Your task to perform on an android device: Open Reddit.com Image 0: 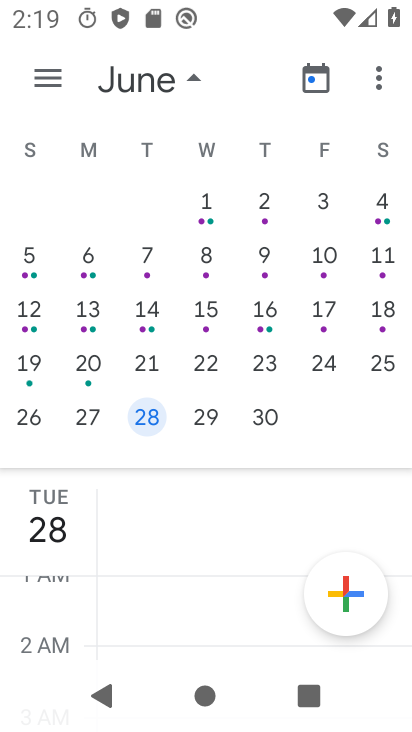
Step 0: press home button
Your task to perform on an android device: Open Reddit.com Image 1: 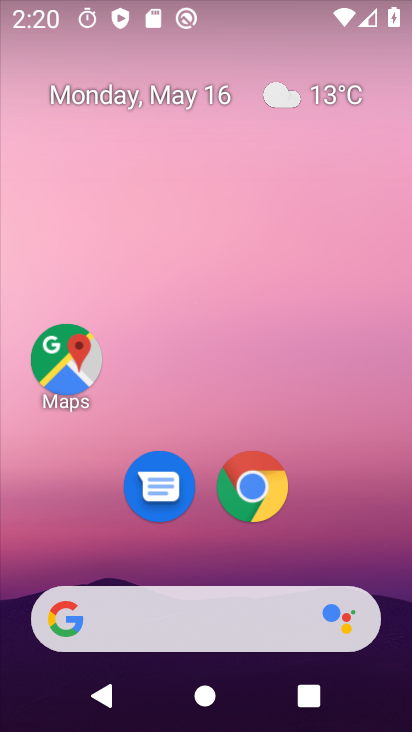
Step 1: click (257, 486)
Your task to perform on an android device: Open Reddit.com Image 2: 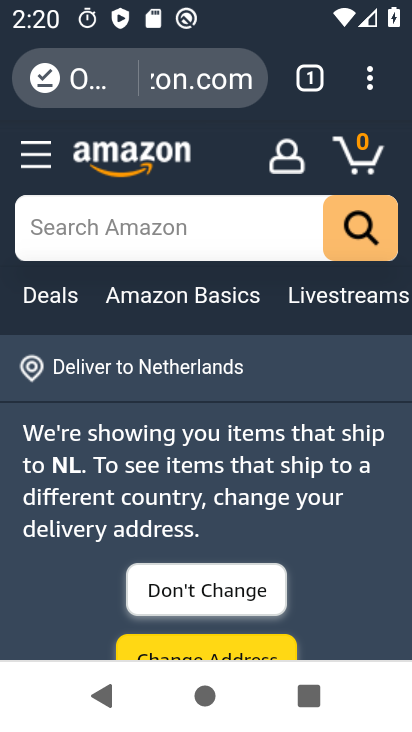
Step 2: click (128, 98)
Your task to perform on an android device: Open Reddit.com Image 3: 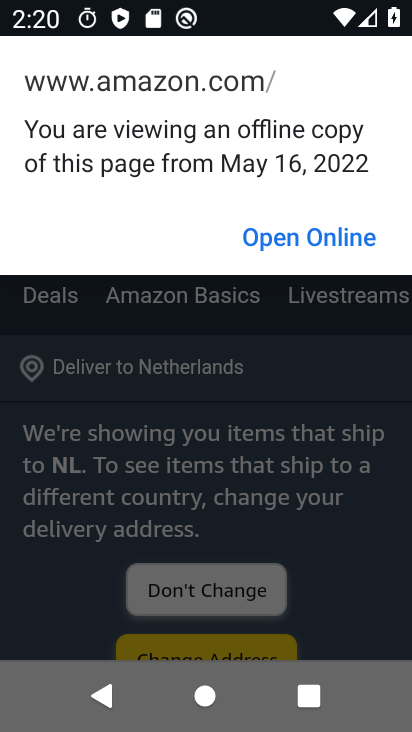
Step 3: press back button
Your task to perform on an android device: Open Reddit.com Image 4: 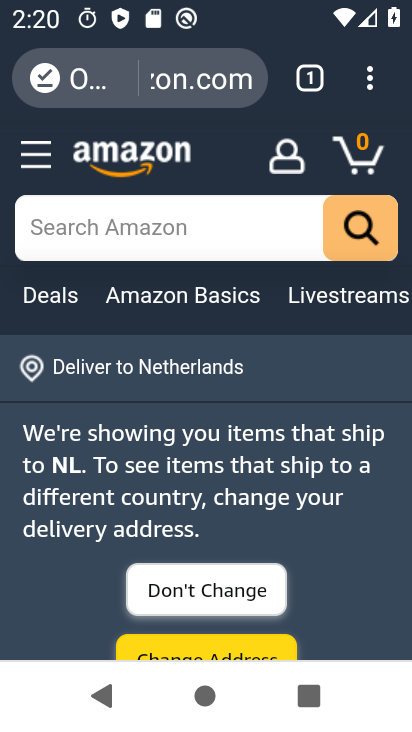
Step 4: click (145, 57)
Your task to perform on an android device: Open Reddit.com Image 5: 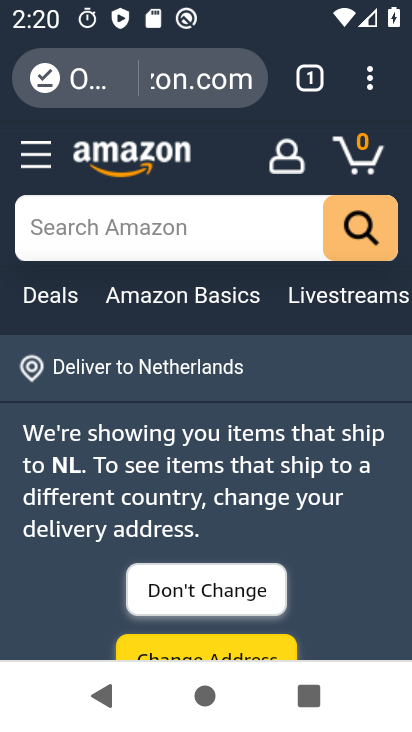
Step 5: click (158, 77)
Your task to perform on an android device: Open Reddit.com Image 6: 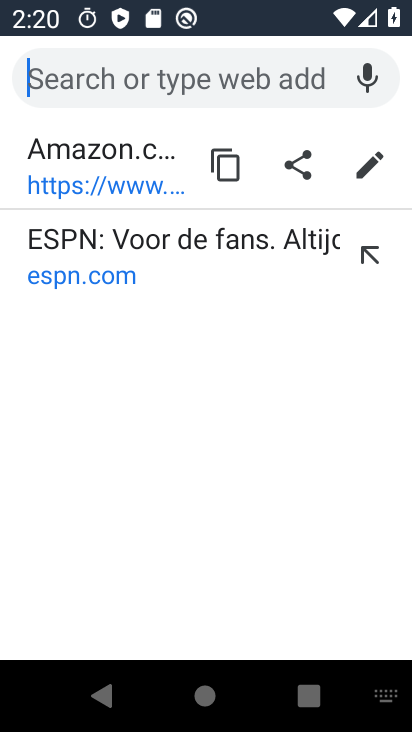
Step 6: type "reddit"
Your task to perform on an android device: Open Reddit.com Image 7: 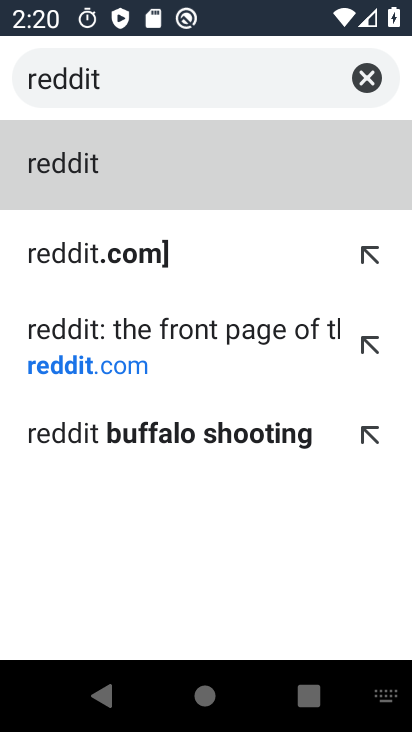
Step 7: click (77, 359)
Your task to perform on an android device: Open Reddit.com Image 8: 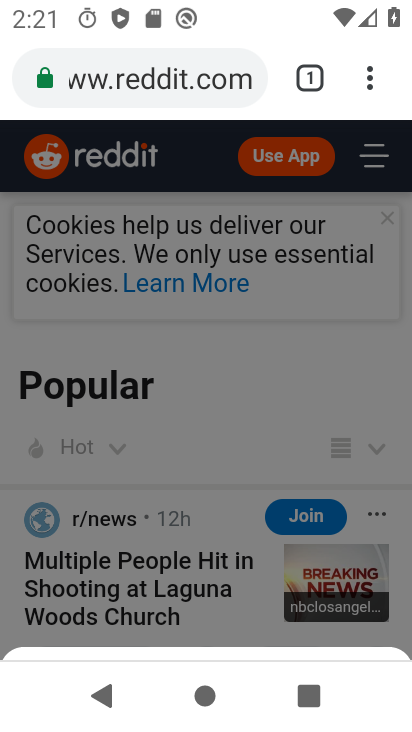
Step 8: task complete